Your task to perform on an android device: toggle notifications settings in the gmail app Image 0: 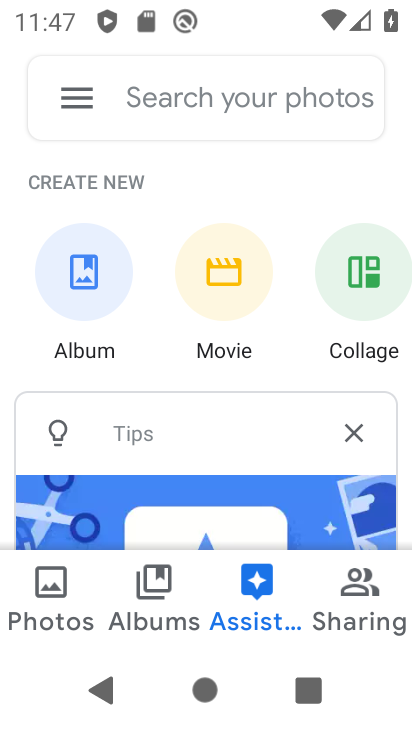
Step 0: press home button
Your task to perform on an android device: toggle notifications settings in the gmail app Image 1: 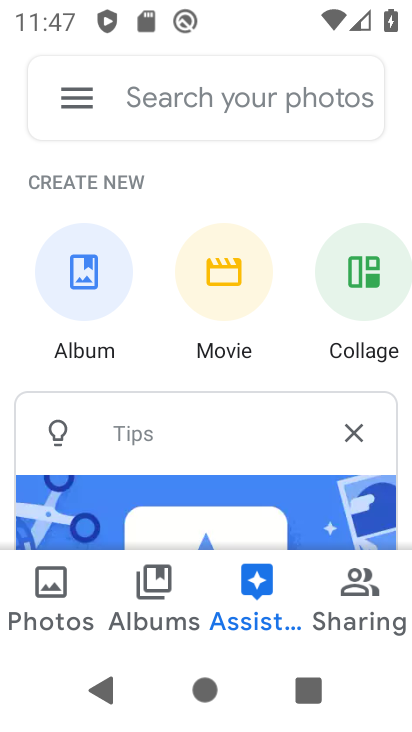
Step 1: press home button
Your task to perform on an android device: toggle notifications settings in the gmail app Image 2: 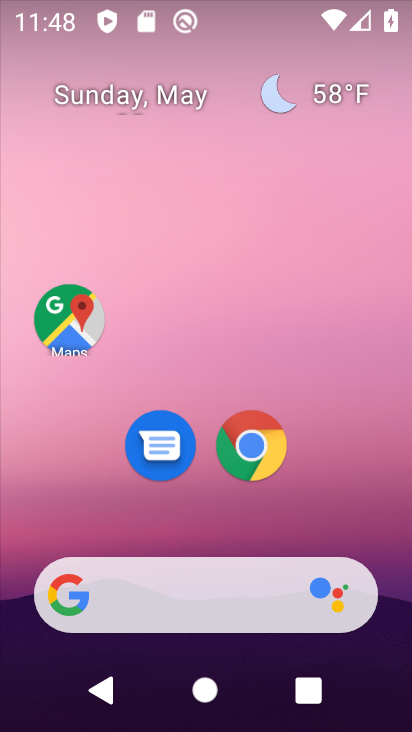
Step 2: drag from (212, 531) to (223, 4)
Your task to perform on an android device: toggle notifications settings in the gmail app Image 3: 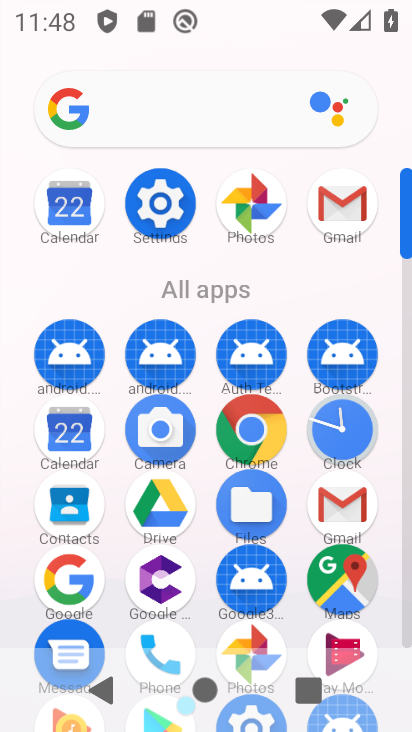
Step 3: click (339, 194)
Your task to perform on an android device: toggle notifications settings in the gmail app Image 4: 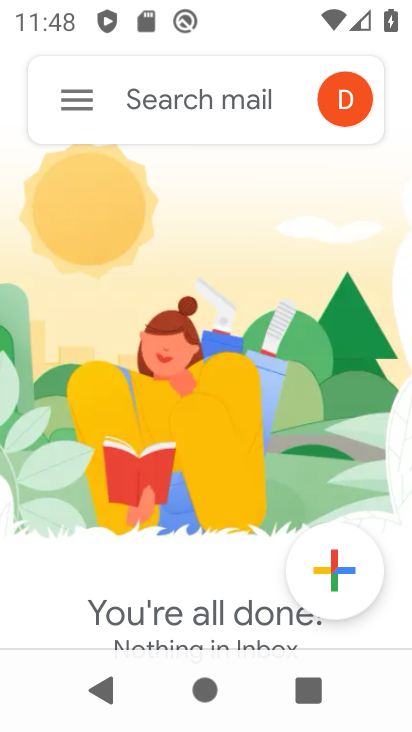
Step 4: click (80, 93)
Your task to perform on an android device: toggle notifications settings in the gmail app Image 5: 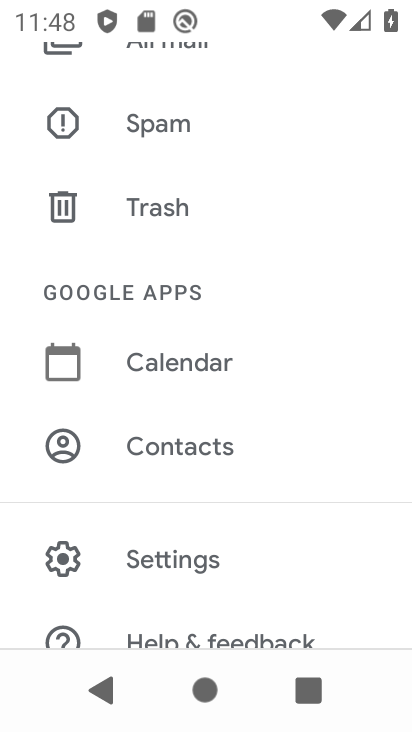
Step 5: click (104, 548)
Your task to perform on an android device: toggle notifications settings in the gmail app Image 6: 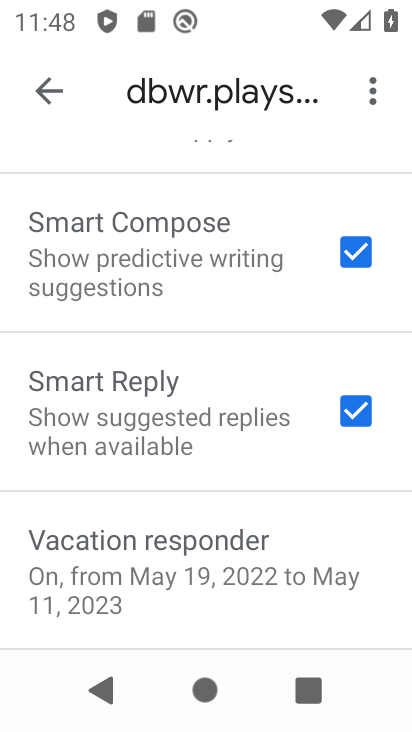
Step 6: click (53, 89)
Your task to perform on an android device: toggle notifications settings in the gmail app Image 7: 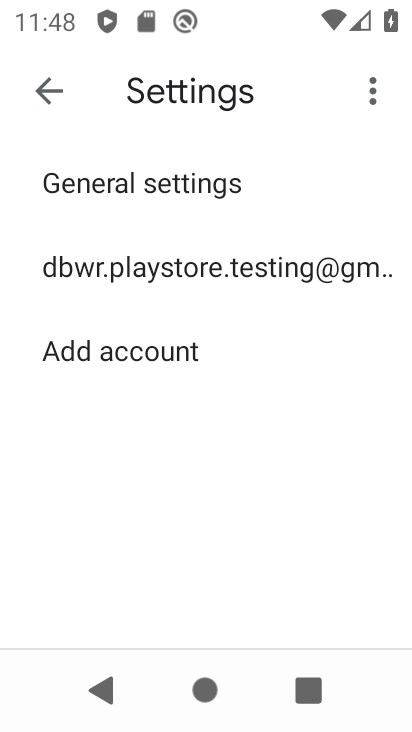
Step 7: click (140, 191)
Your task to perform on an android device: toggle notifications settings in the gmail app Image 8: 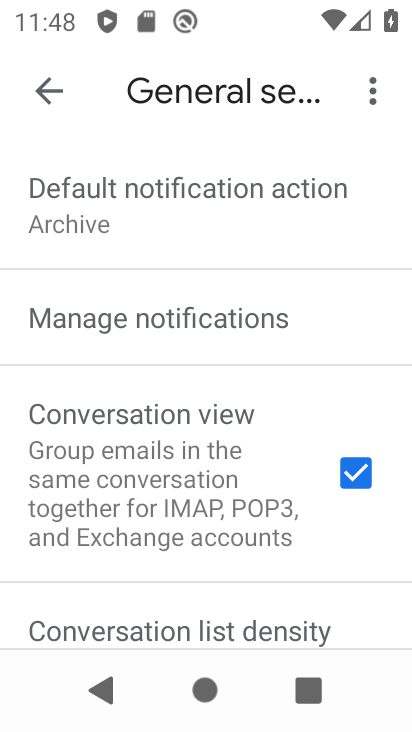
Step 8: click (216, 341)
Your task to perform on an android device: toggle notifications settings in the gmail app Image 9: 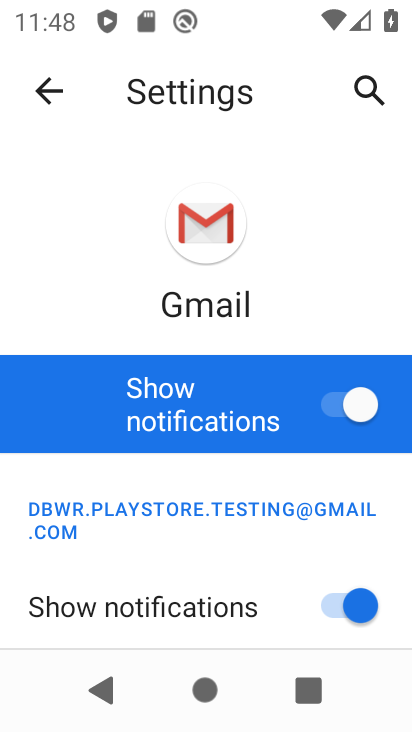
Step 9: task complete